Your task to perform on an android device: Open Google Maps and go to "Timeline" Image 0: 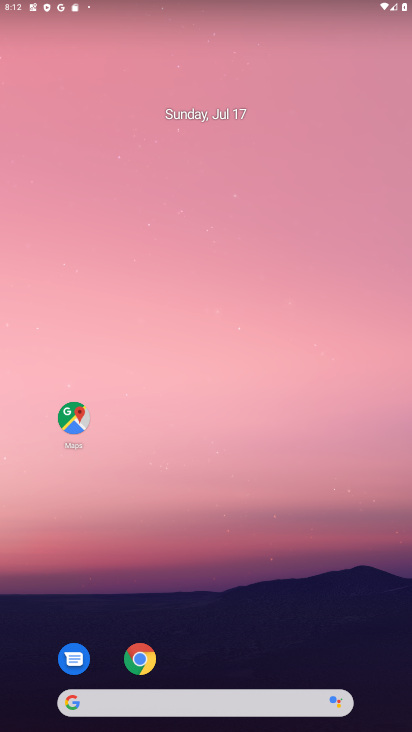
Step 0: drag from (214, 652) to (212, 237)
Your task to perform on an android device: Open Google Maps and go to "Timeline" Image 1: 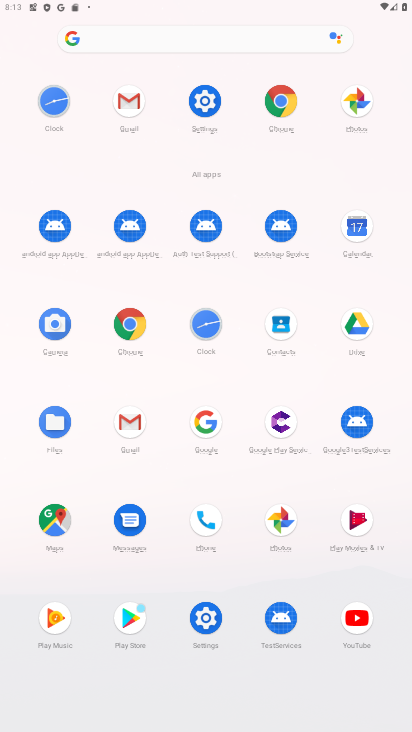
Step 1: click (55, 526)
Your task to perform on an android device: Open Google Maps and go to "Timeline" Image 2: 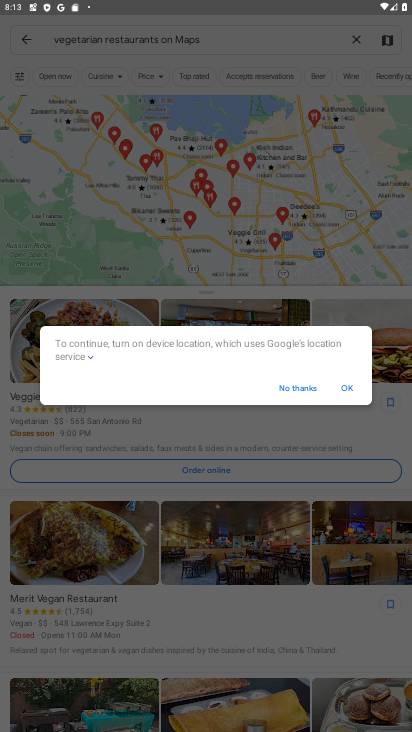
Step 2: click (349, 389)
Your task to perform on an android device: Open Google Maps and go to "Timeline" Image 3: 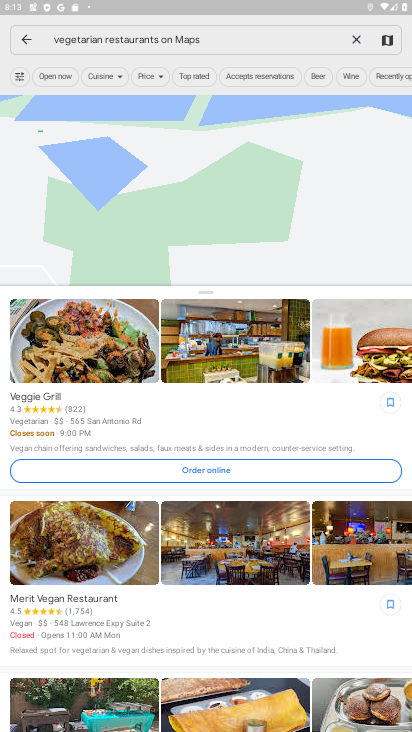
Step 3: click (28, 42)
Your task to perform on an android device: Open Google Maps and go to "Timeline" Image 4: 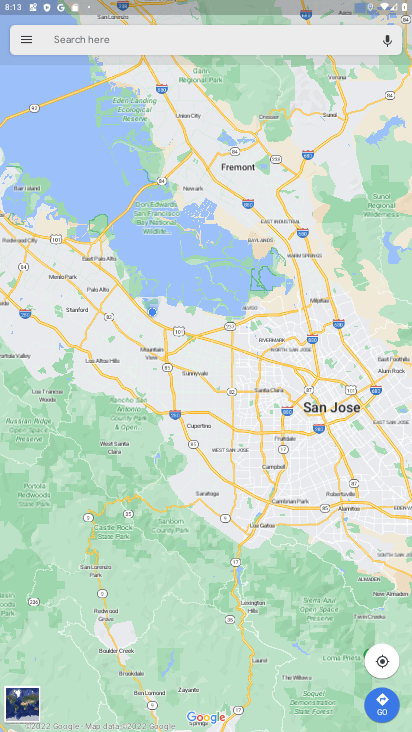
Step 4: press home button
Your task to perform on an android device: Open Google Maps and go to "Timeline" Image 5: 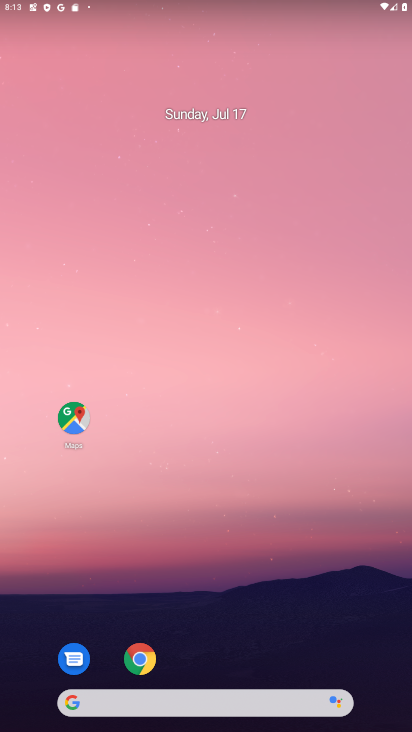
Step 5: drag from (260, 617) to (273, 250)
Your task to perform on an android device: Open Google Maps and go to "Timeline" Image 6: 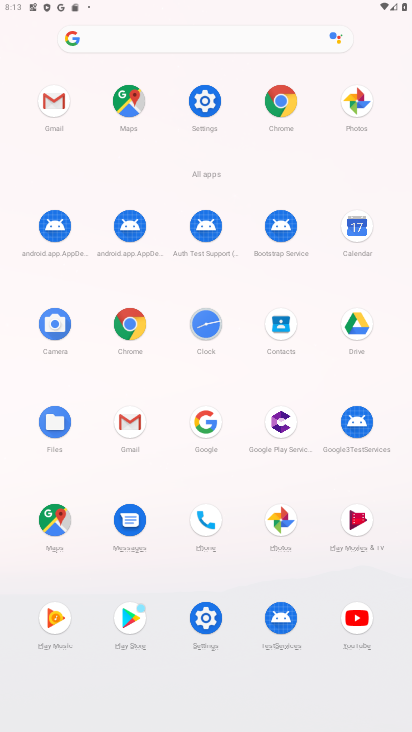
Step 6: click (52, 523)
Your task to perform on an android device: Open Google Maps and go to "Timeline" Image 7: 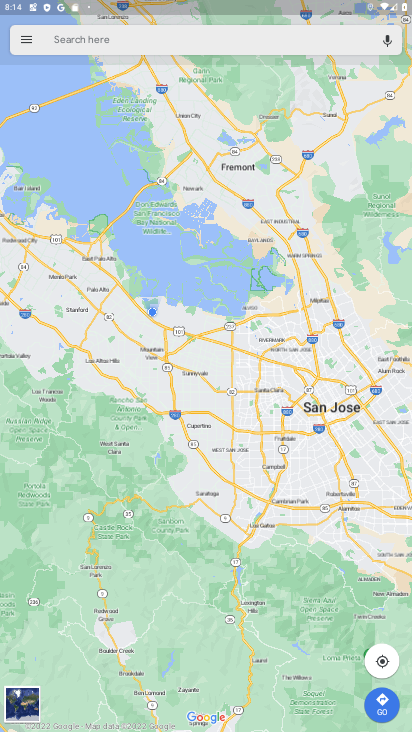
Step 7: task complete